Your task to perform on an android device: choose inbox layout in the gmail app Image 0: 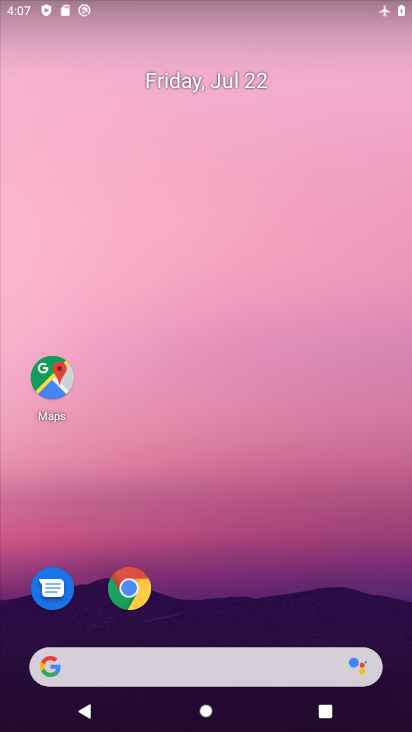
Step 0: drag from (242, 578) to (215, 126)
Your task to perform on an android device: choose inbox layout in the gmail app Image 1: 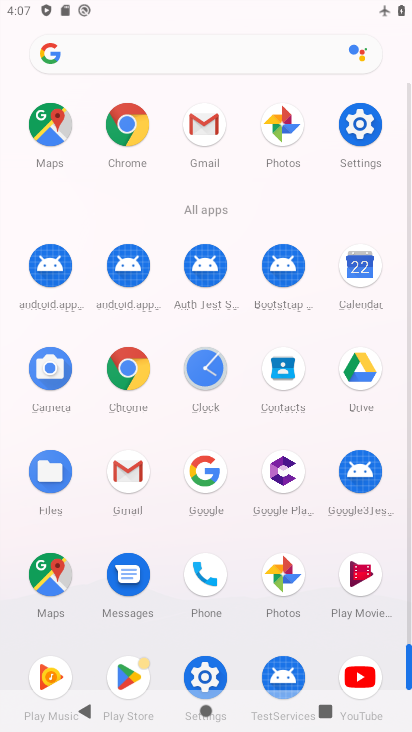
Step 1: click (203, 140)
Your task to perform on an android device: choose inbox layout in the gmail app Image 2: 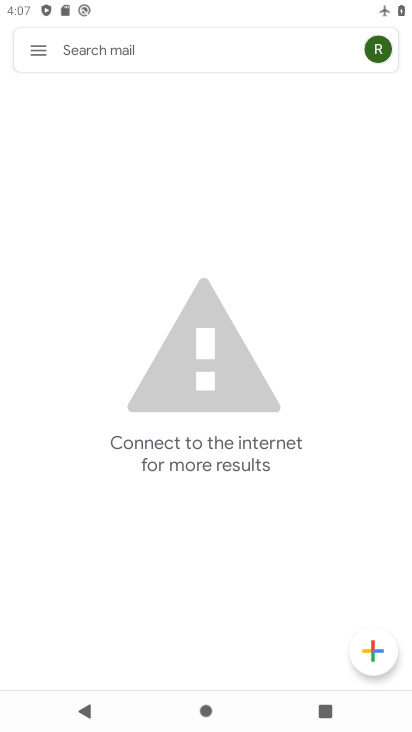
Step 2: click (39, 54)
Your task to perform on an android device: choose inbox layout in the gmail app Image 3: 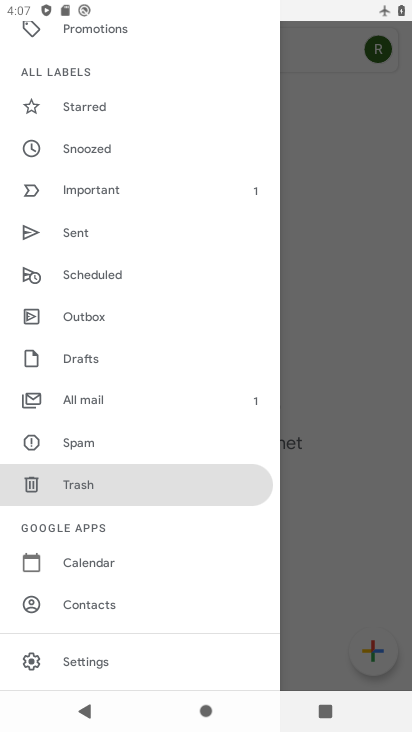
Step 3: click (108, 663)
Your task to perform on an android device: choose inbox layout in the gmail app Image 4: 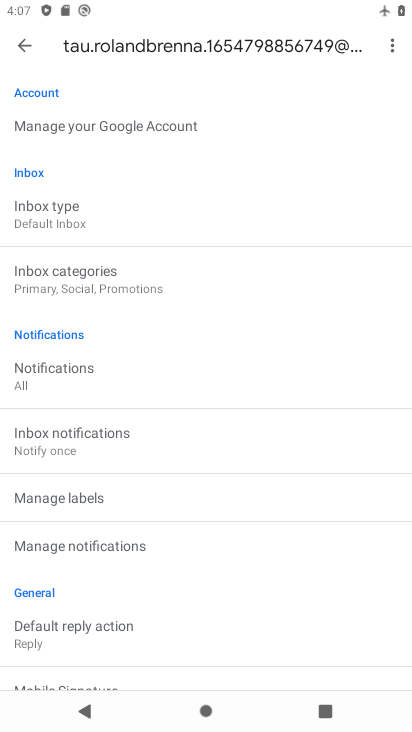
Step 4: click (109, 661)
Your task to perform on an android device: choose inbox layout in the gmail app Image 5: 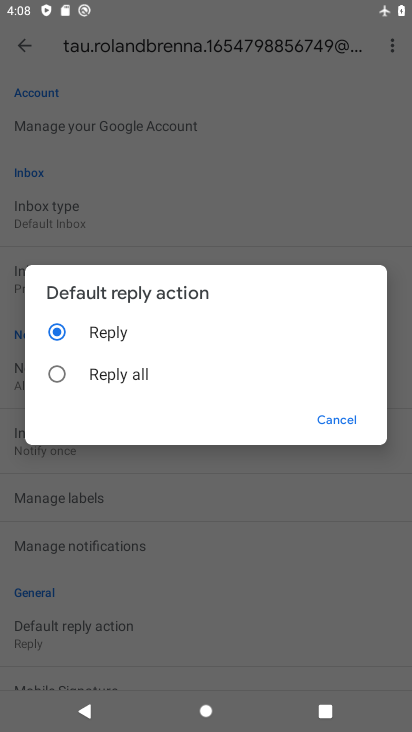
Step 5: click (349, 420)
Your task to perform on an android device: choose inbox layout in the gmail app Image 6: 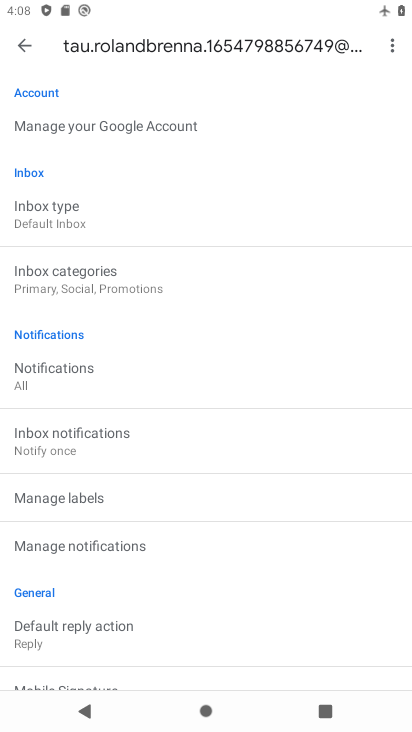
Step 6: drag from (335, 405) to (298, 258)
Your task to perform on an android device: choose inbox layout in the gmail app Image 7: 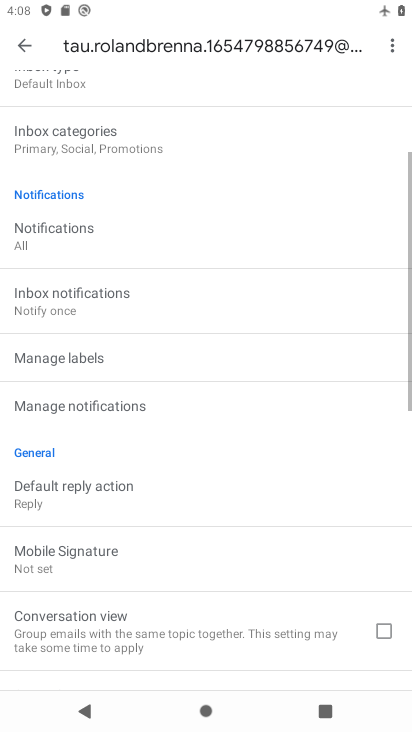
Step 7: click (236, 217)
Your task to perform on an android device: choose inbox layout in the gmail app Image 8: 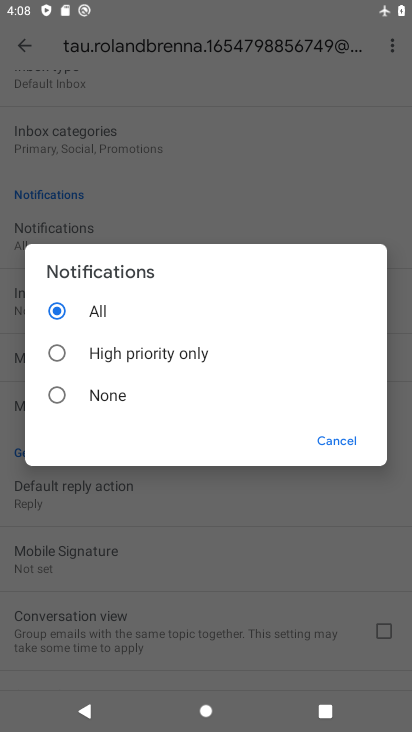
Step 8: click (346, 449)
Your task to perform on an android device: choose inbox layout in the gmail app Image 9: 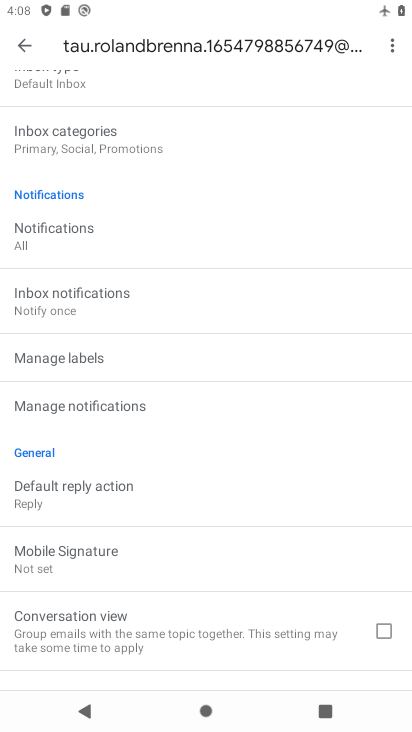
Step 9: click (343, 447)
Your task to perform on an android device: choose inbox layout in the gmail app Image 10: 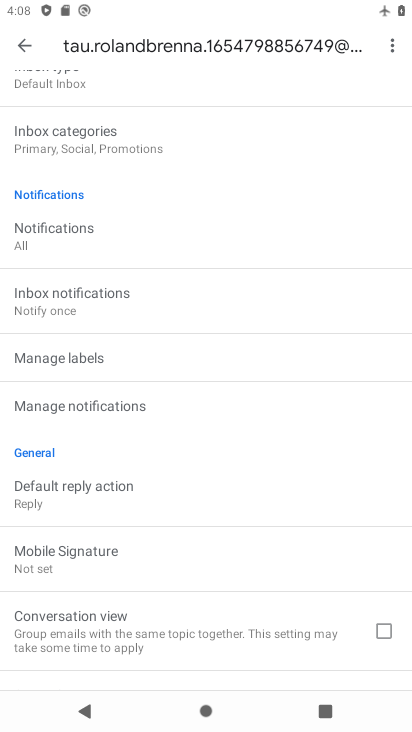
Step 10: click (97, 81)
Your task to perform on an android device: choose inbox layout in the gmail app Image 11: 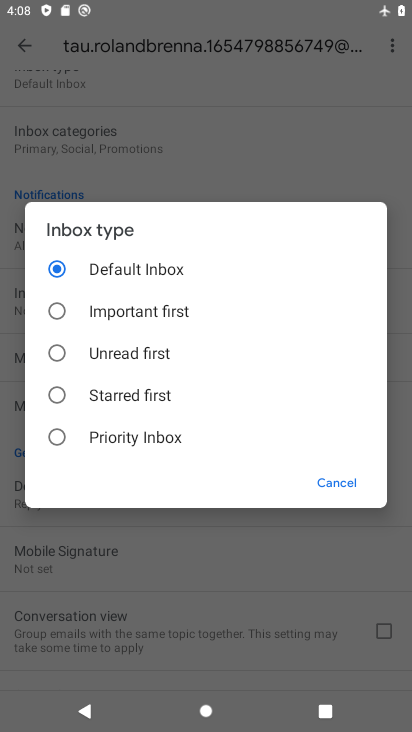
Step 11: click (126, 345)
Your task to perform on an android device: choose inbox layout in the gmail app Image 12: 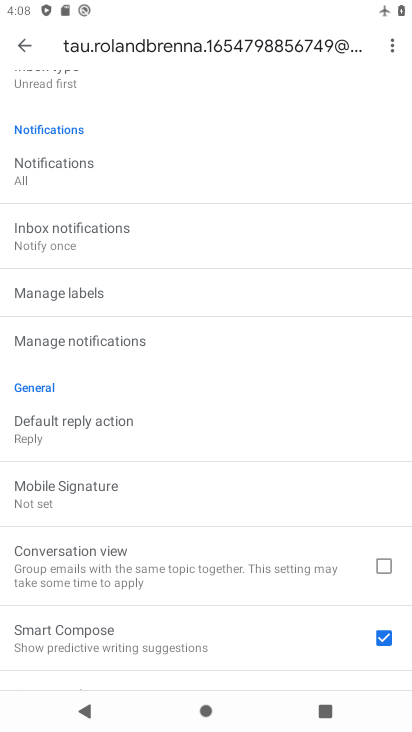
Step 12: task complete